Your task to perform on an android device: Open the Play Movies app and select the watchlist tab. Image 0: 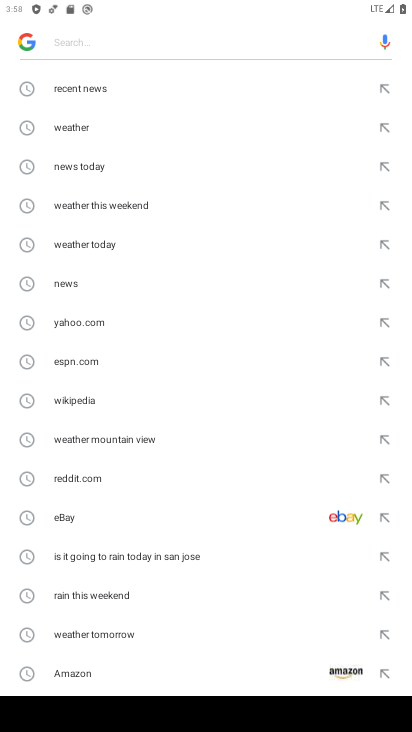
Step 0: press back button
Your task to perform on an android device: Open the Play Movies app and select the watchlist tab. Image 1: 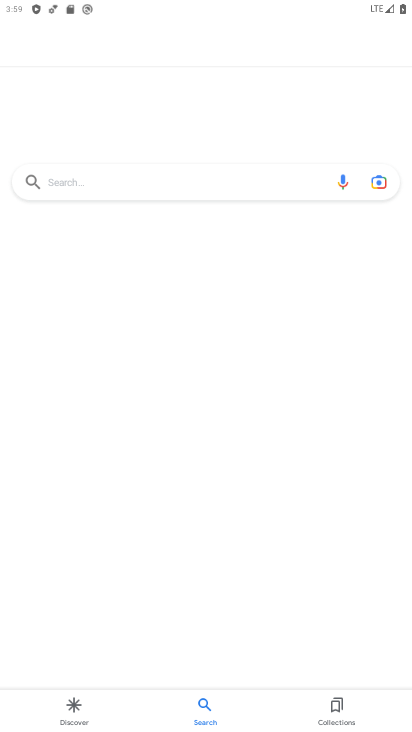
Step 1: press home button
Your task to perform on an android device: Open the Play Movies app and select the watchlist tab. Image 2: 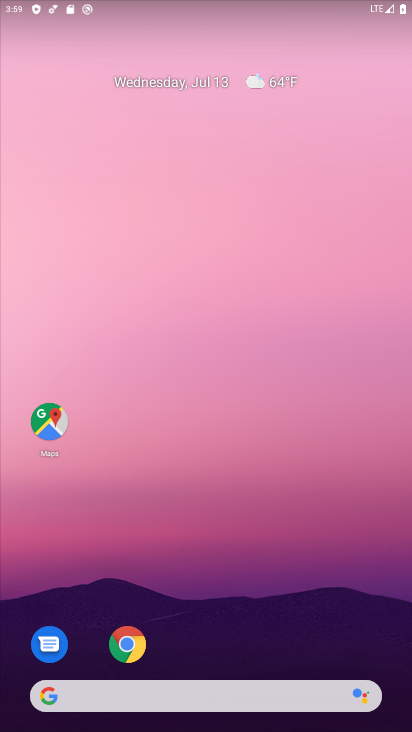
Step 2: drag from (217, 666) to (319, 17)
Your task to perform on an android device: Open the Play Movies app and select the watchlist tab. Image 3: 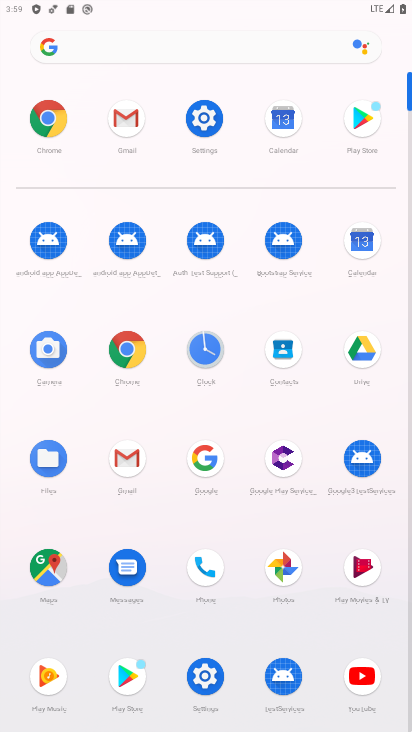
Step 3: click (359, 585)
Your task to perform on an android device: Open the Play Movies app and select the watchlist tab. Image 4: 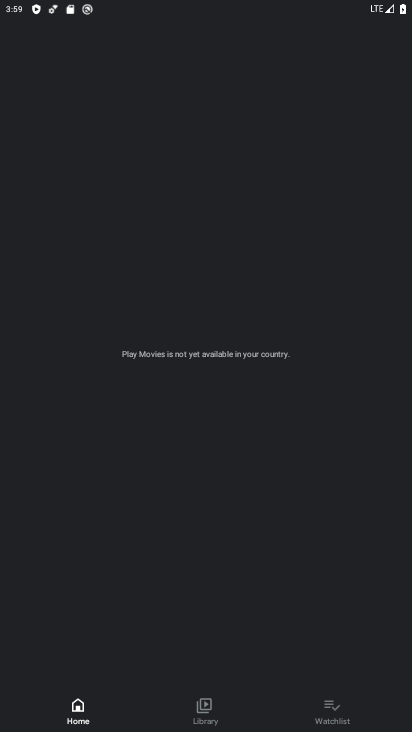
Step 4: click (345, 696)
Your task to perform on an android device: Open the Play Movies app and select the watchlist tab. Image 5: 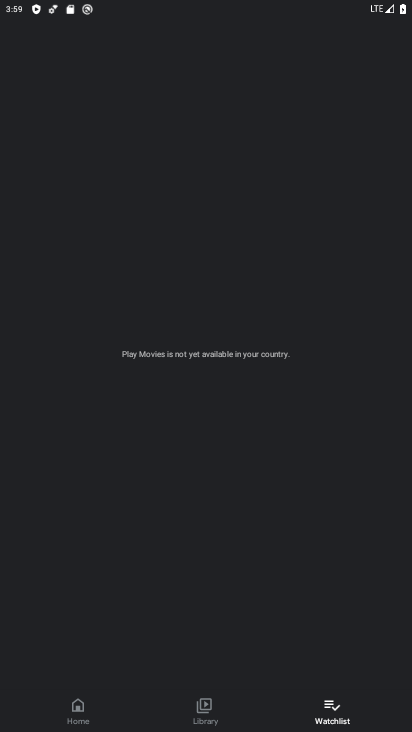
Step 5: task complete